Your task to perform on an android device: turn off smart reply in the gmail app Image 0: 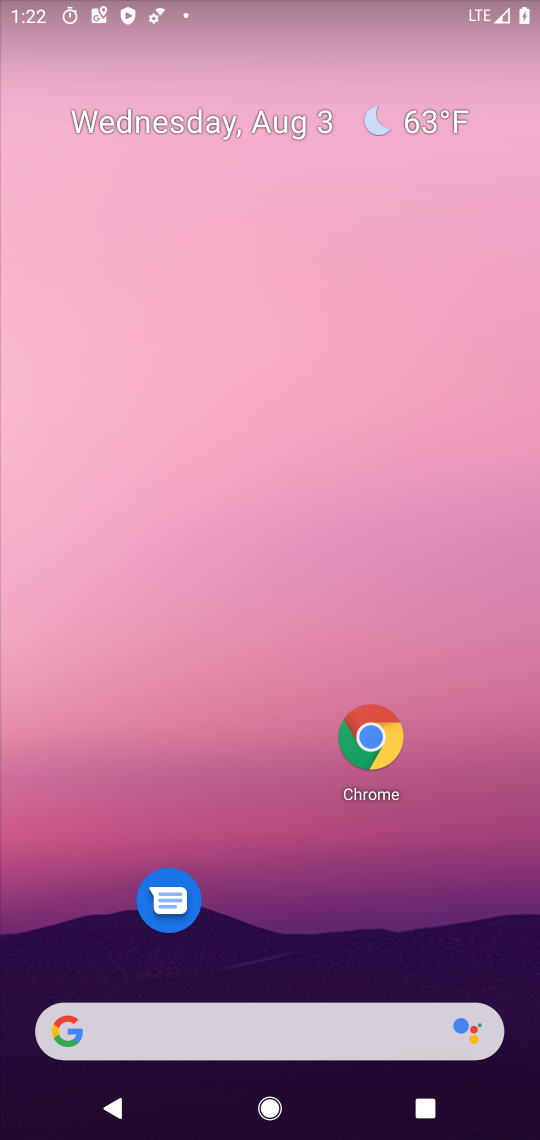
Step 0: drag from (258, 902) to (243, 82)
Your task to perform on an android device: turn off smart reply in the gmail app Image 1: 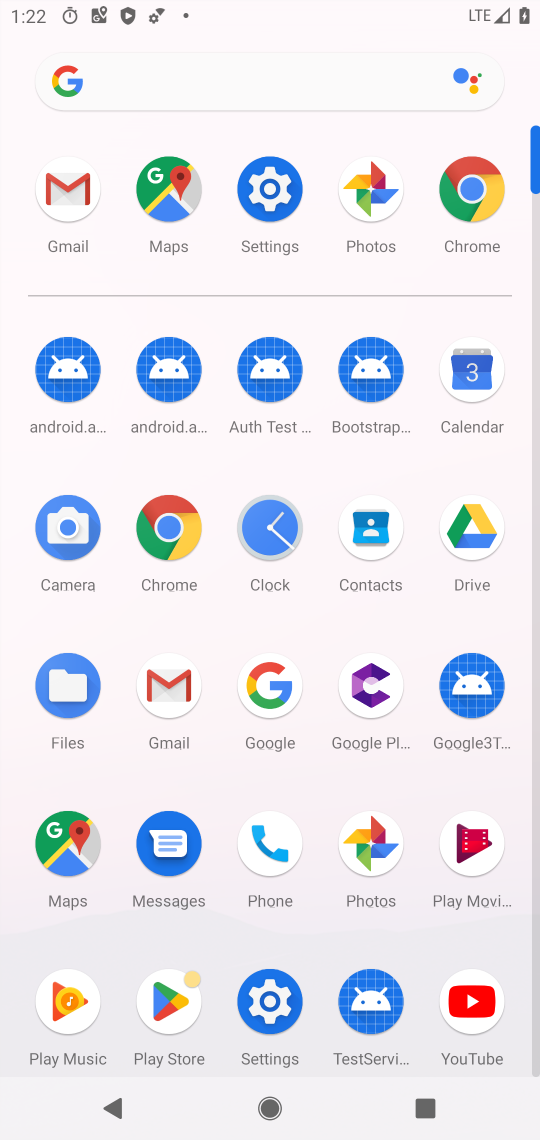
Step 1: click (193, 702)
Your task to perform on an android device: turn off smart reply in the gmail app Image 2: 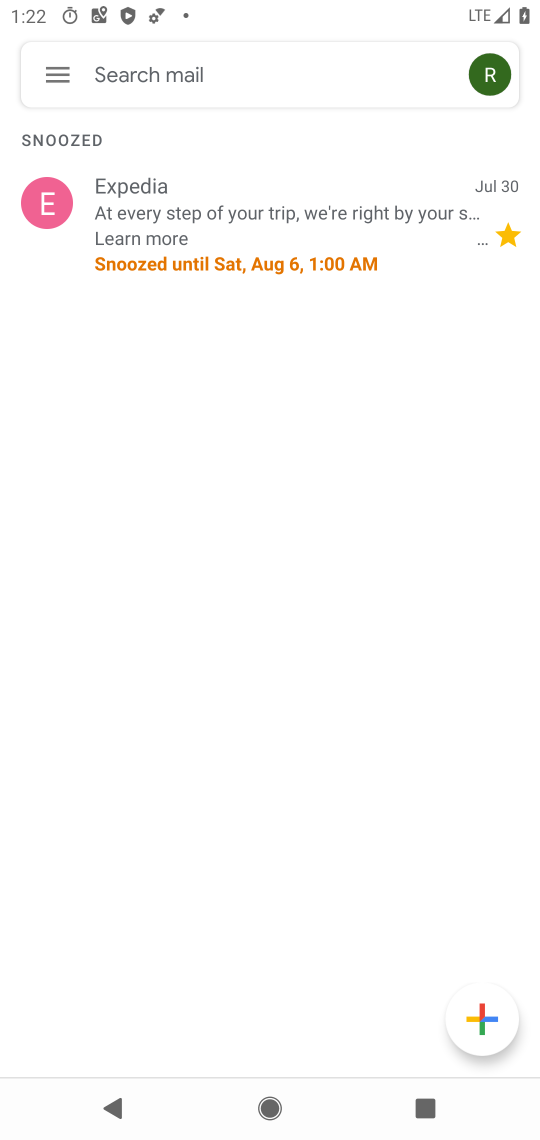
Step 2: click (56, 63)
Your task to perform on an android device: turn off smart reply in the gmail app Image 3: 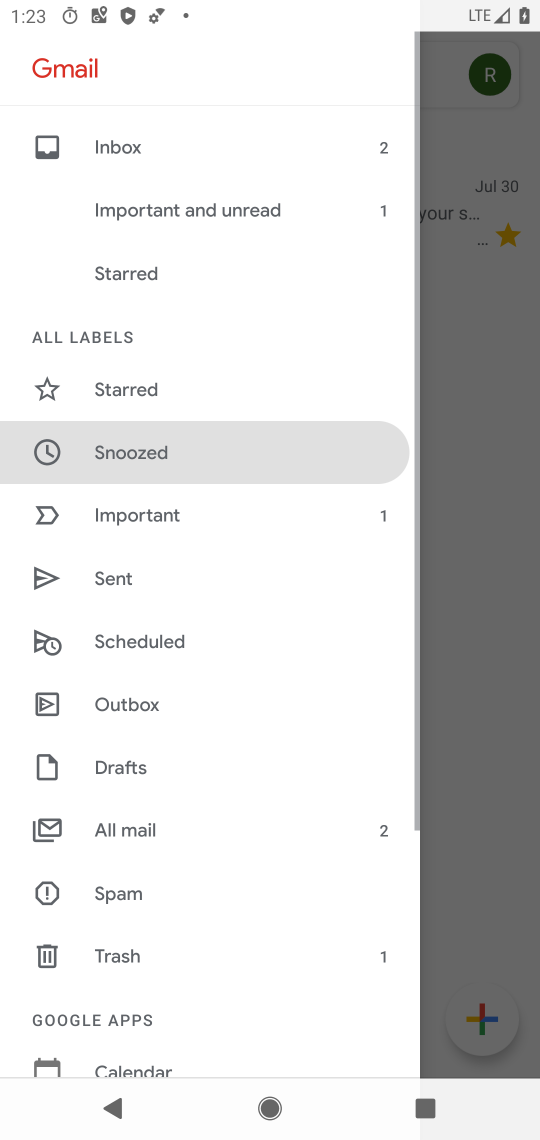
Step 3: drag from (193, 939) to (266, 208)
Your task to perform on an android device: turn off smart reply in the gmail app Image 4: 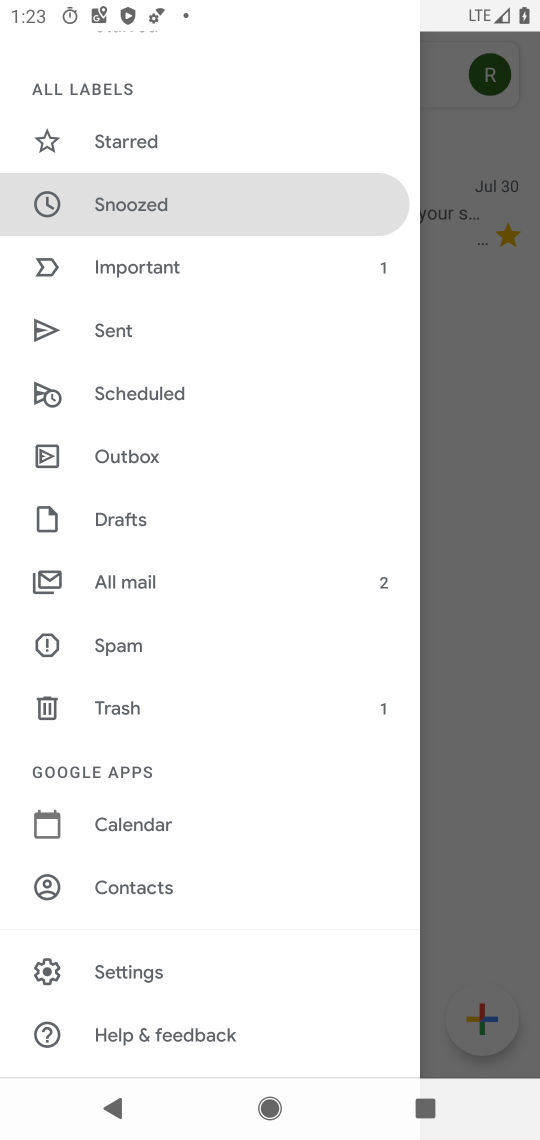
Step 4: click (126, 961)
Your task to perform on an android device: turn off smart reply in the gmail app Image 5: 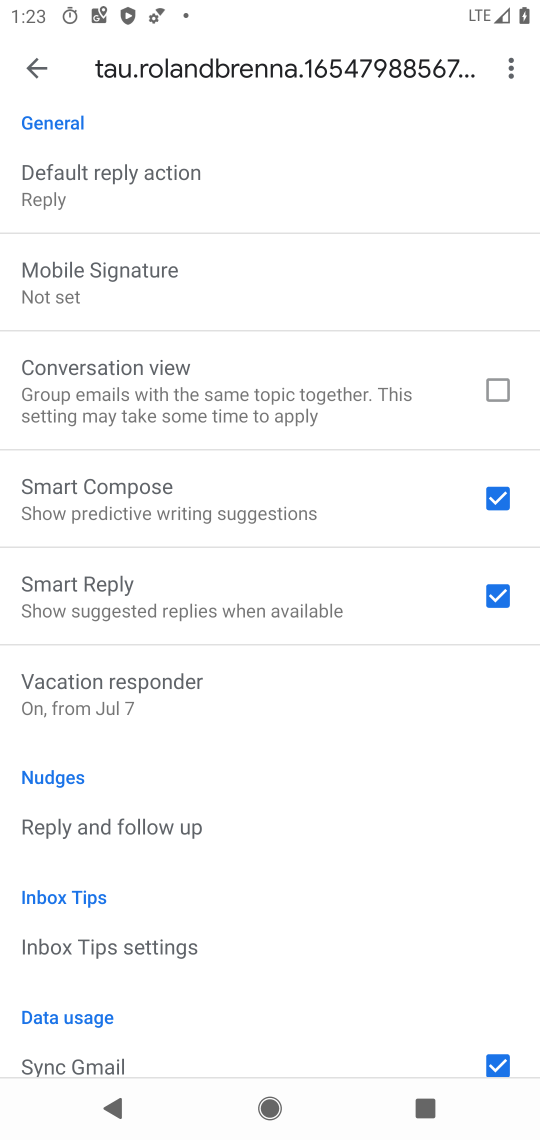
Step 5: click (494, 591)
Your task to perform on an android device: turn off smart reply in the gmail app Image 6: 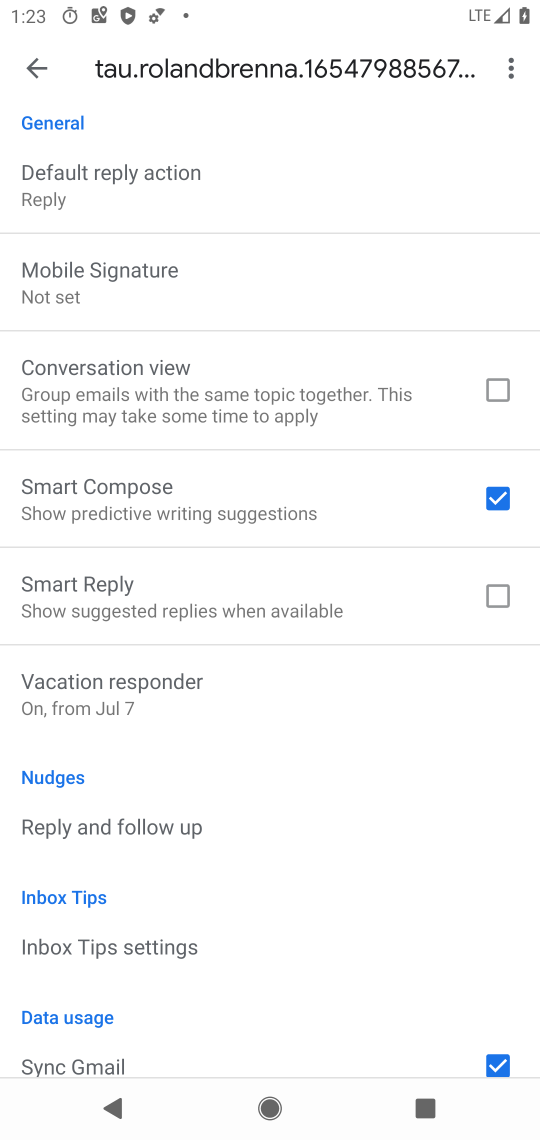
Step 6: task complete